Your task to perform on an android device: change notification settings in the gmail app Image 0: 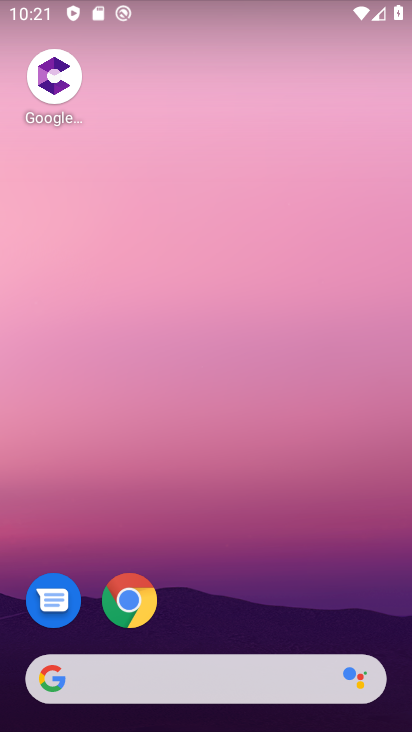
Step 0: drag from (218, 623) to (257, 173)
Your task to perform on an android device: change notification settings in the gmail app Image 1: 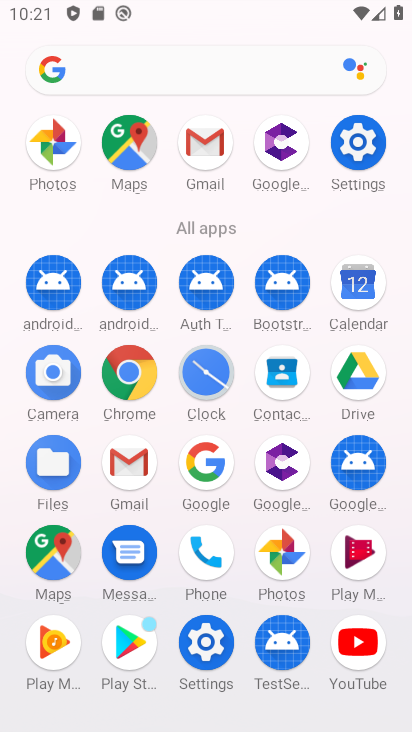
Step 1: click (216, 173)
Your task to perform on an android device: change notification settings in the gmail app Image 2: 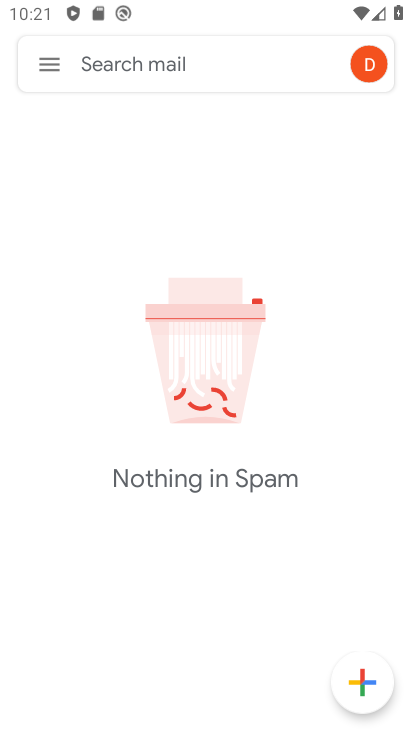
Step 2: click (49, 62)
Your task to perform on an android device: change notification settings in the gmail app Image 3: 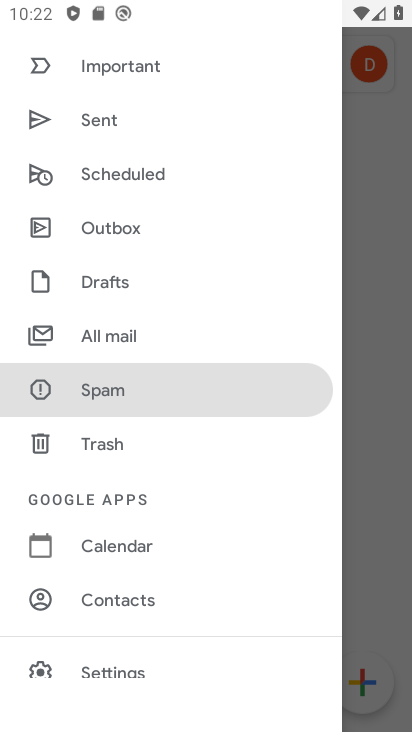
Step 3: click (111, 666)
Your task to perform on an android device: change notification settings in the gmail app Image 4: 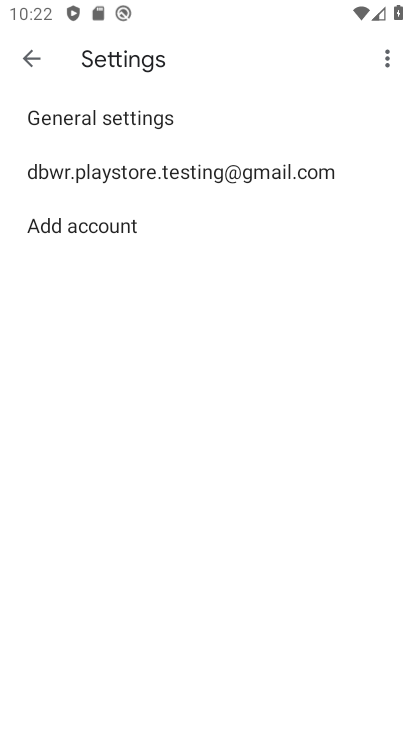
Step 4: click (183, 167)
Your task to perform on an android device: change notification settings in the gmail app Image 5: 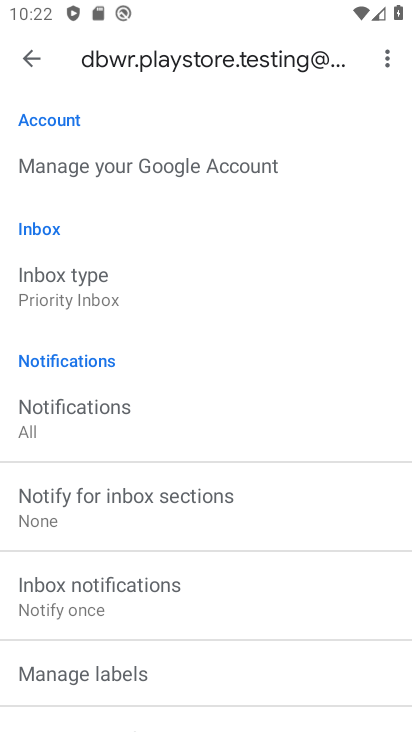
Step 5: click (97, 428)
Your task to perform on an android device: change notification settings in the gmail app Image 6: 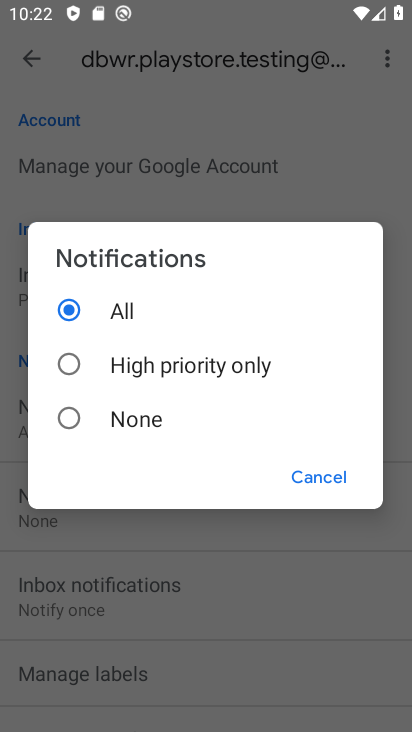
Step 6: click (64, 428)
Your task to perform on an android device: change notification settings in the gmail app Image 7: 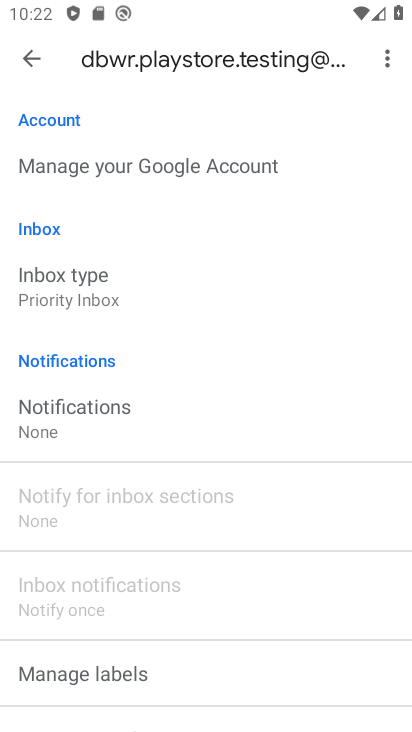
Step 7: task complete